Your task to perform on an android device: clear history in the chrome app Image 0: 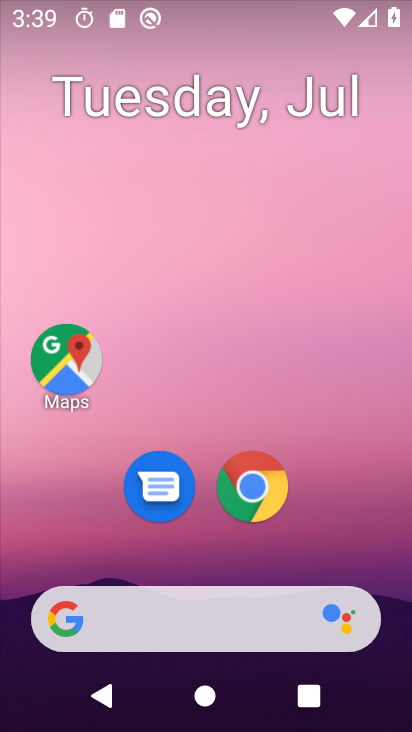
Step 0: drag from (331, 554) to (336, 84)
Your task to perform on an android device: clear history in the chrome app Image 1: 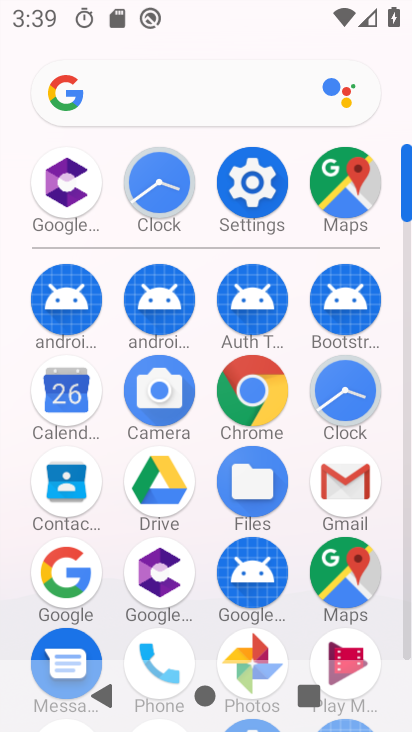
Step 1: click (250, 391)
Your task to perform on an android device: clear history in the chrome app Image 2: 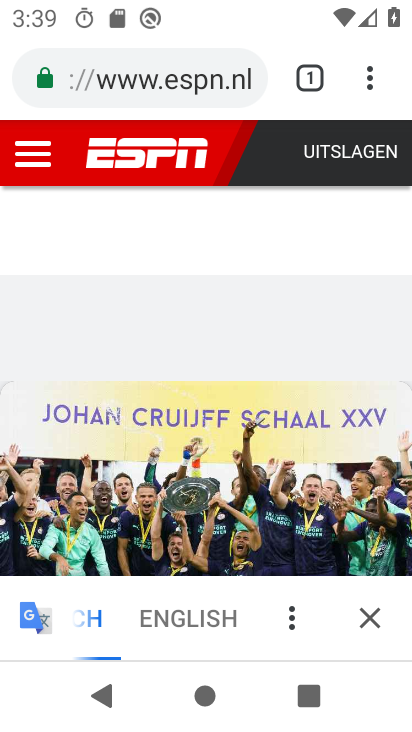
Step 2: click (371, 89)
Your task to perform on an android device: clear history in the chrome app Image 3: 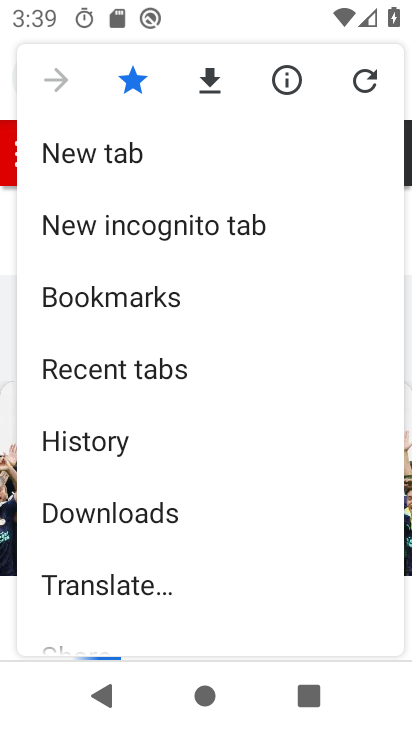
Step 3: drag from (300, 480) to (290, 384)
Your task to perform on an android device: clear history in the chrome app Image 4: 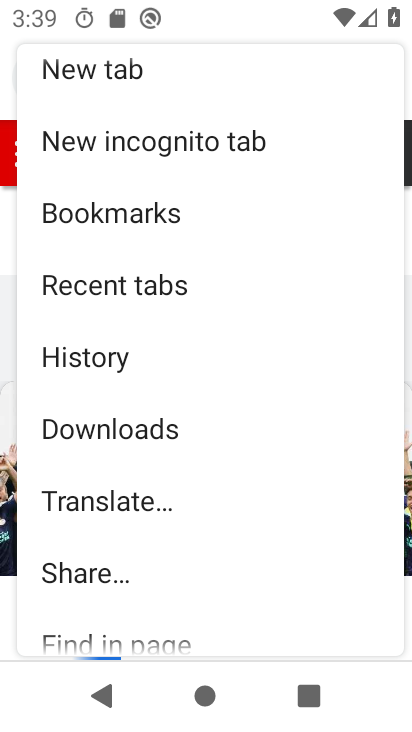
Step 4: drag from (295, 480) to (278, 298)
Your task to perform on an android device: clear history in the chrome app Image 5: 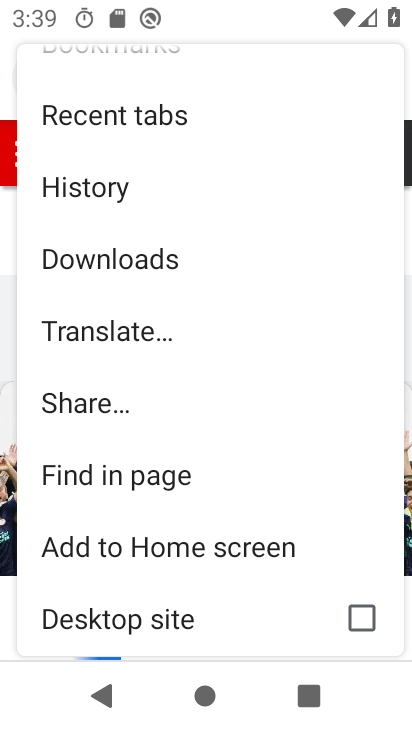
Step 5: click (161, 196)
Your task to perform on an android device: clear history in the chrome app Image 6: 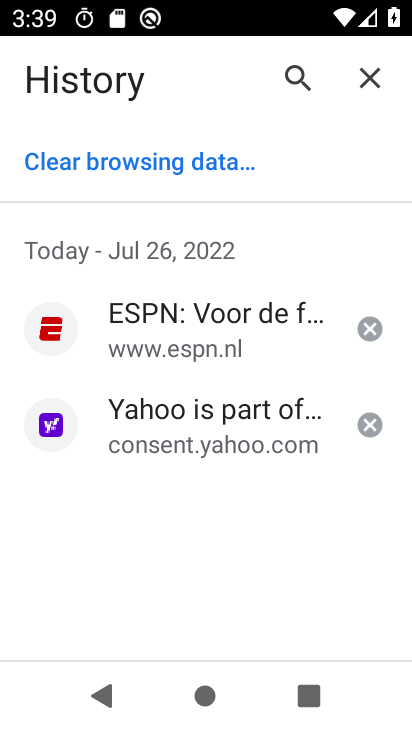
Step 6: click (197, 170)
Your task to perform on an android device: clear history in the chrome app Image 7: 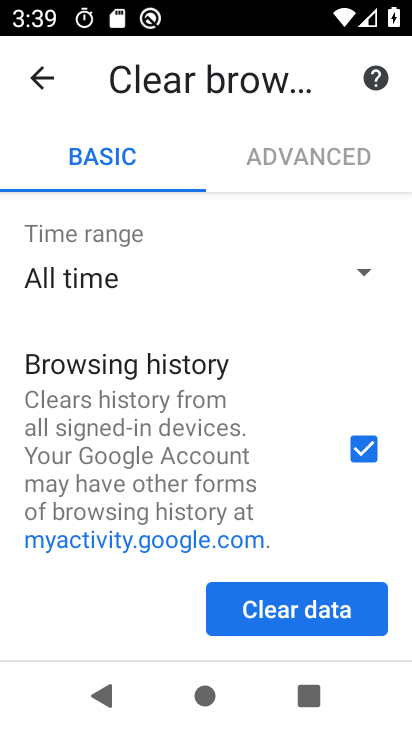
Step 7: click (328, 597)
Your task to perform on an android device: clear history in the chrome app Image 8: 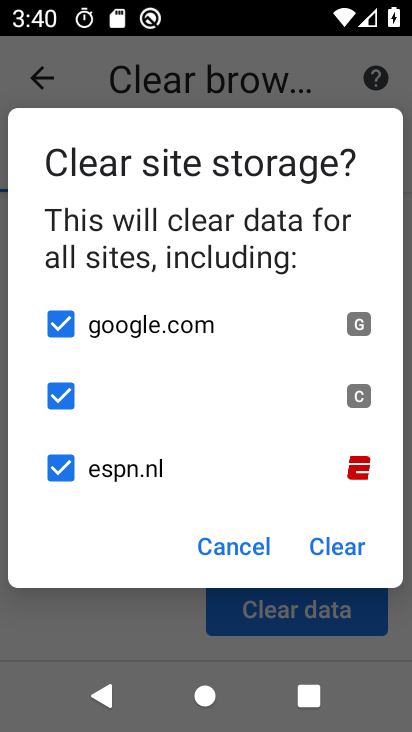
Step 8: click (333, 536)
Your task to perform on an android device: clear history in the chrome app Image 9: 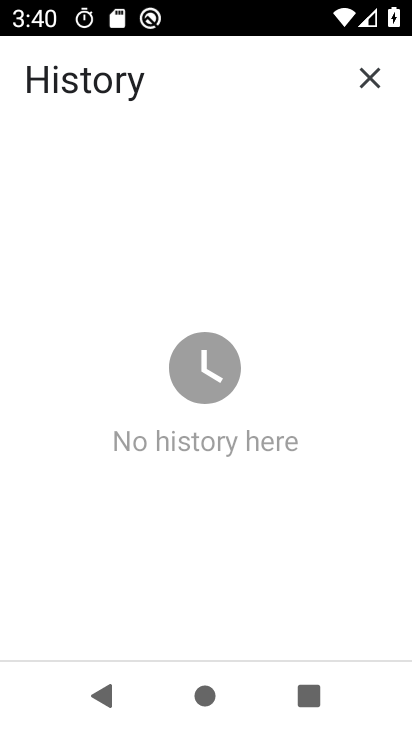
Step 9: task complete